Your task to perform on an android device: add a contact Image 0: 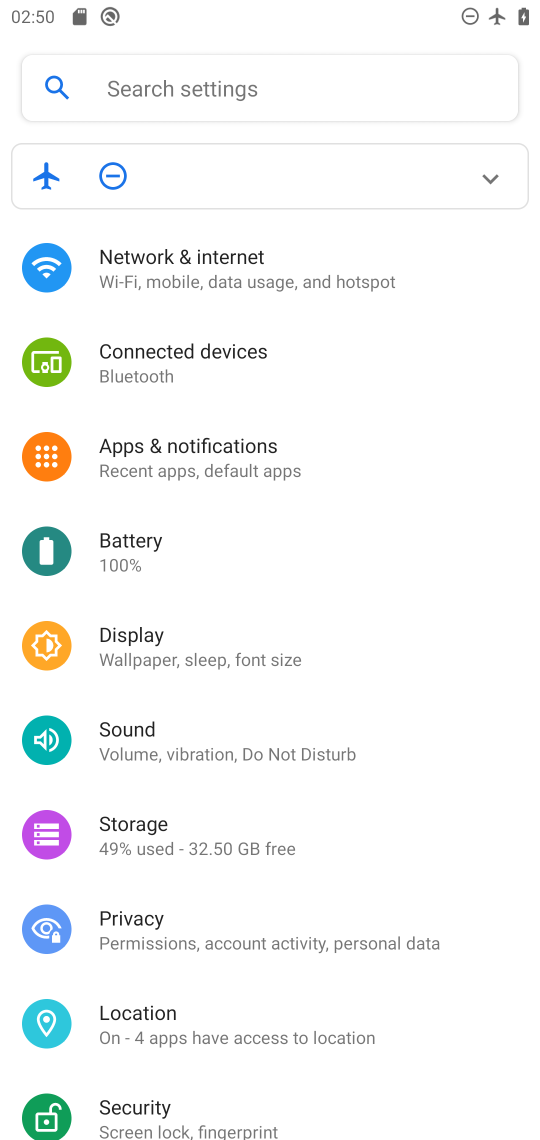
Step 0: press back button
Your task to perform on an android device: add a contact Image 1: 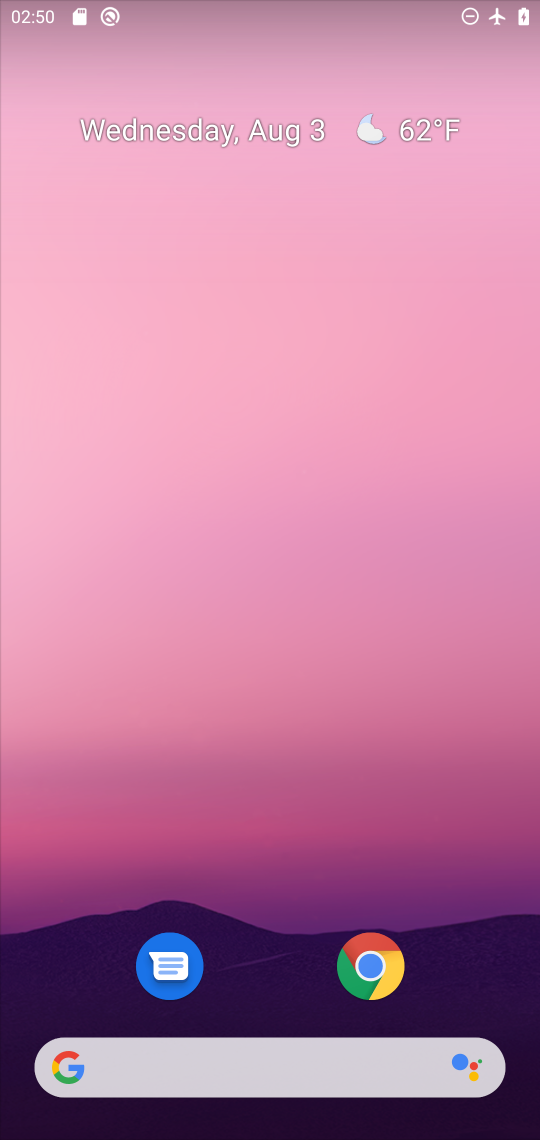
Step 1: press back button
Your task to perform on an android device: add a contact Image 2: 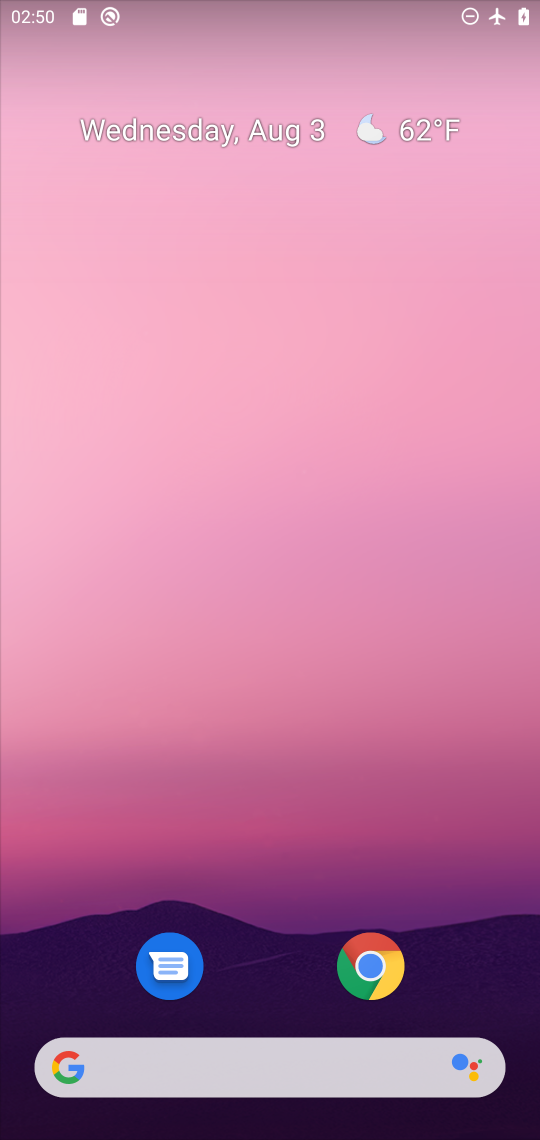
Step 2: drag from (278, 933) to (283, 306)
Your task to perform on an android device: add a contact Image 3: 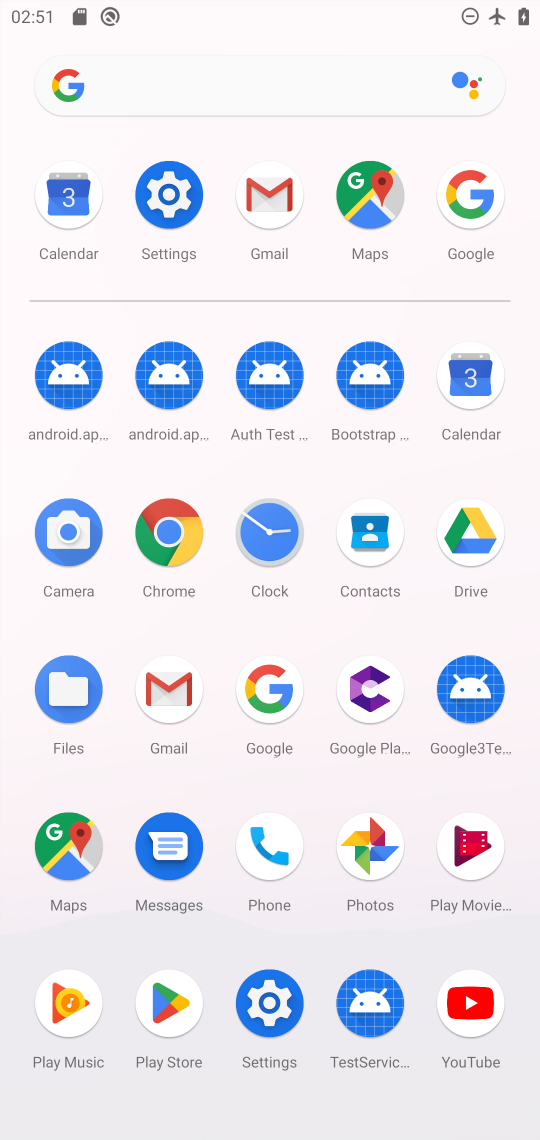
Step 3: click (366, 567)
Your task to perform on an android device: add a contact Image 4: 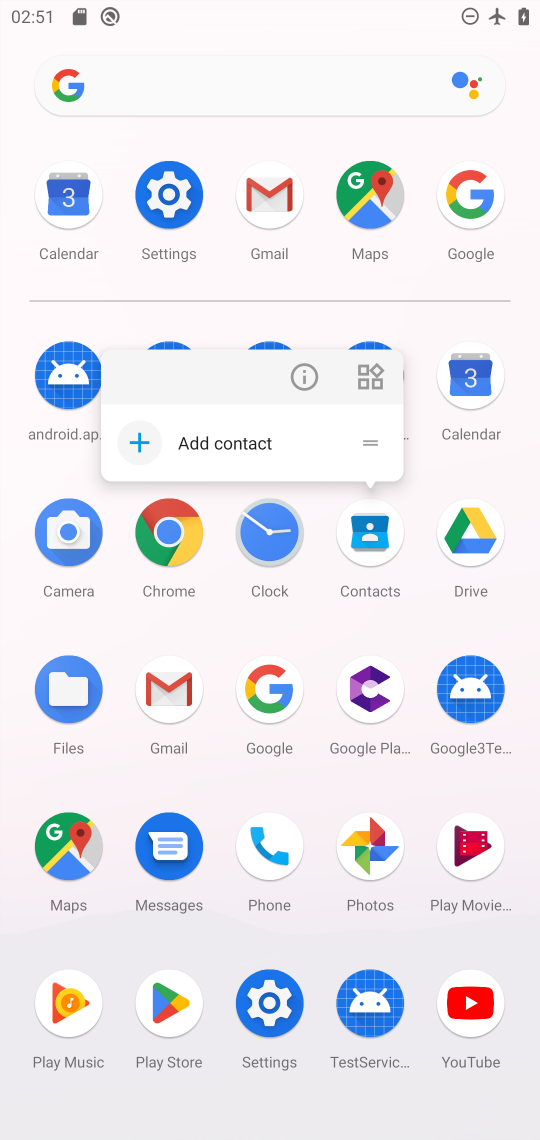
Step 4: click (366, 567)
Your task to perform on an android device: add a contact Image 5: 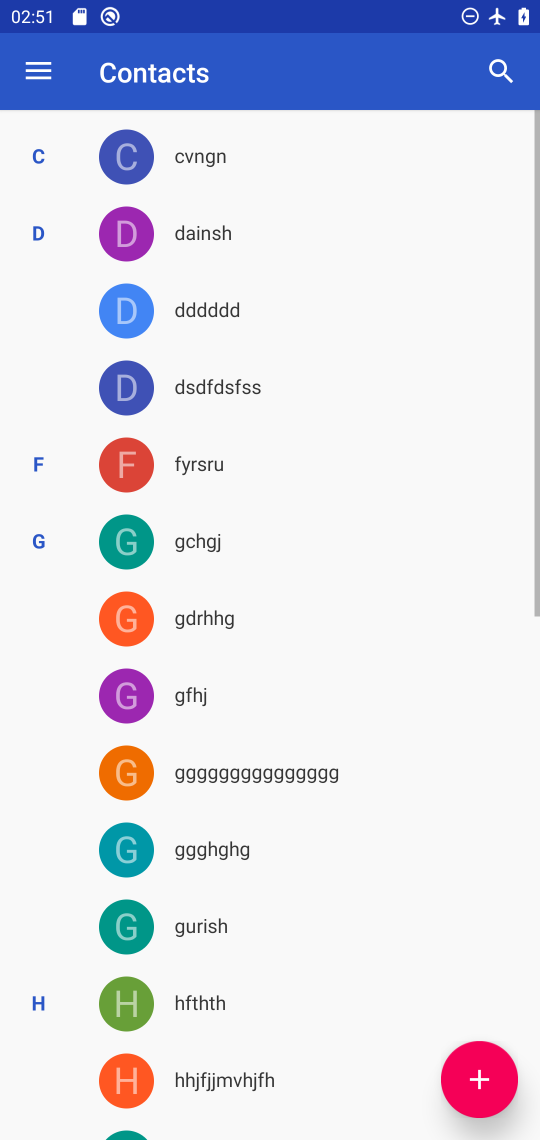
Step 5: click (470, 1074)
Your task to perform on an android device: add a contact Image 6: 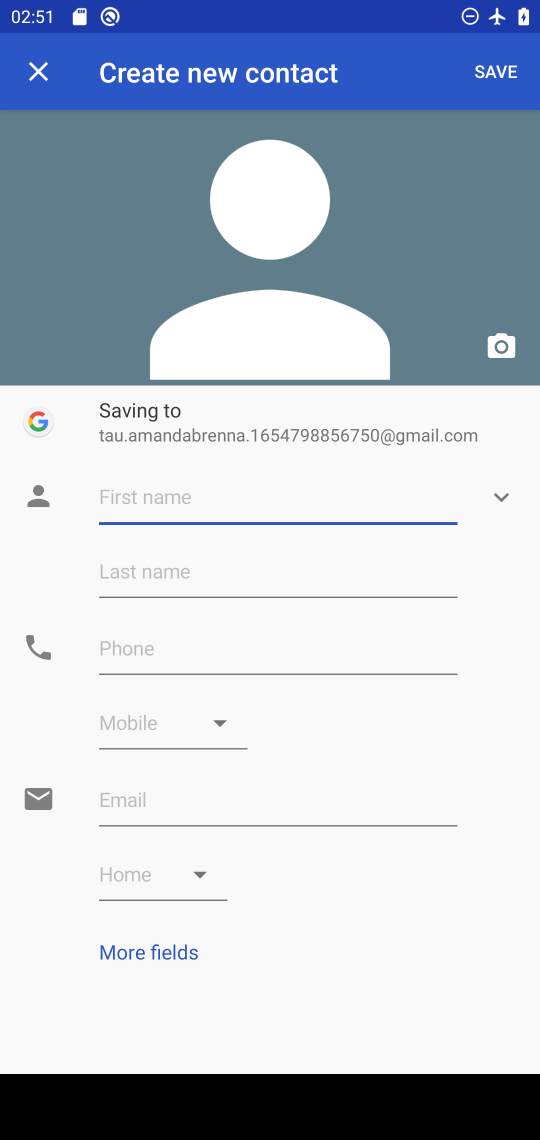
Step 6: type "fdsgdfg"
Your task to perform on an android device: add a contact Image 7: 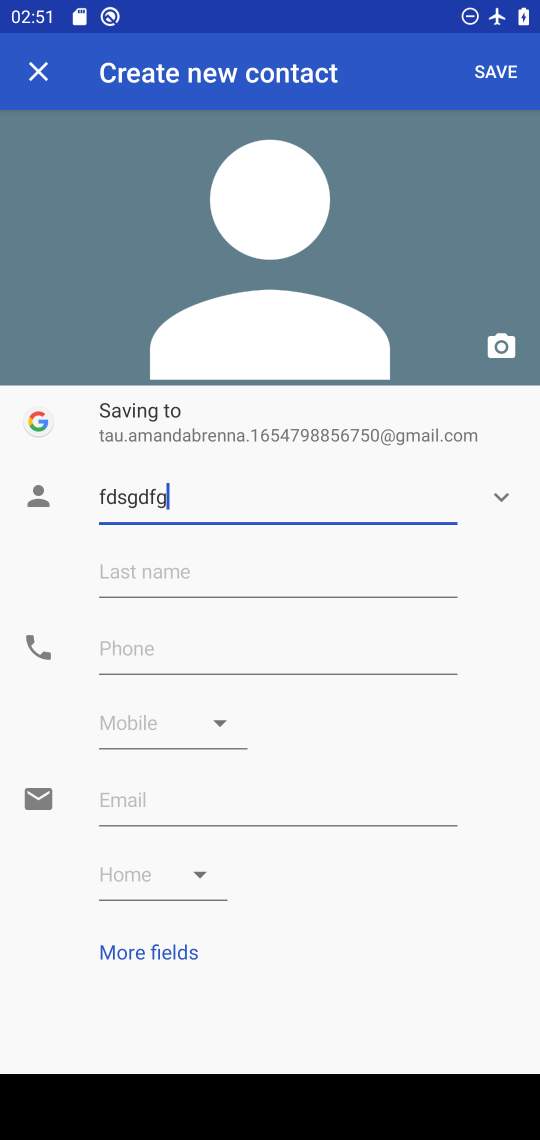
Step 7: type ""
Your task to perform on an android device: add a contact Image 8: 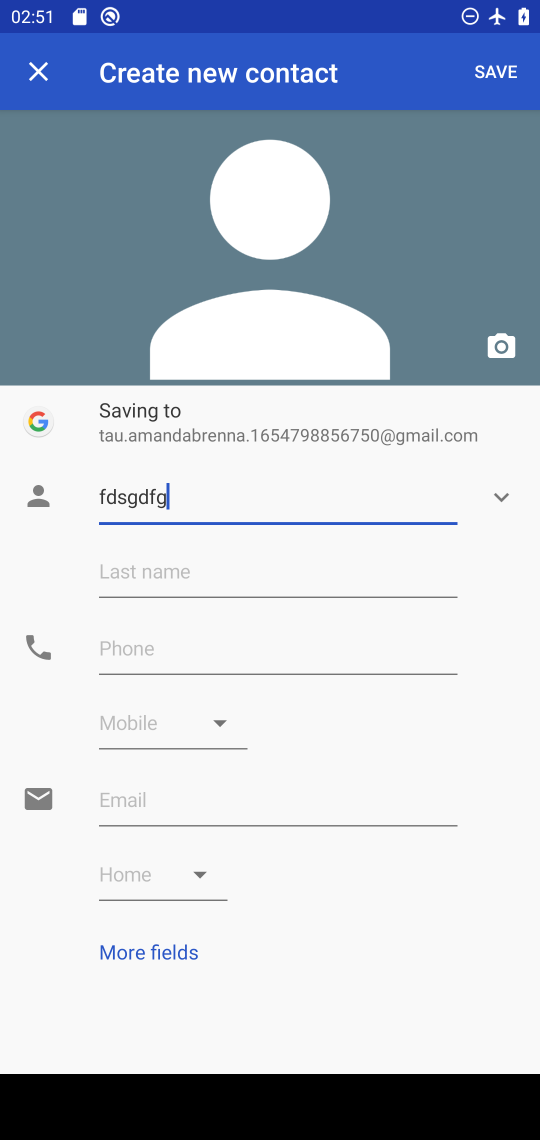
Step 8: click (216, 654)
Your task to perform on an android device: add a contact Image 9: 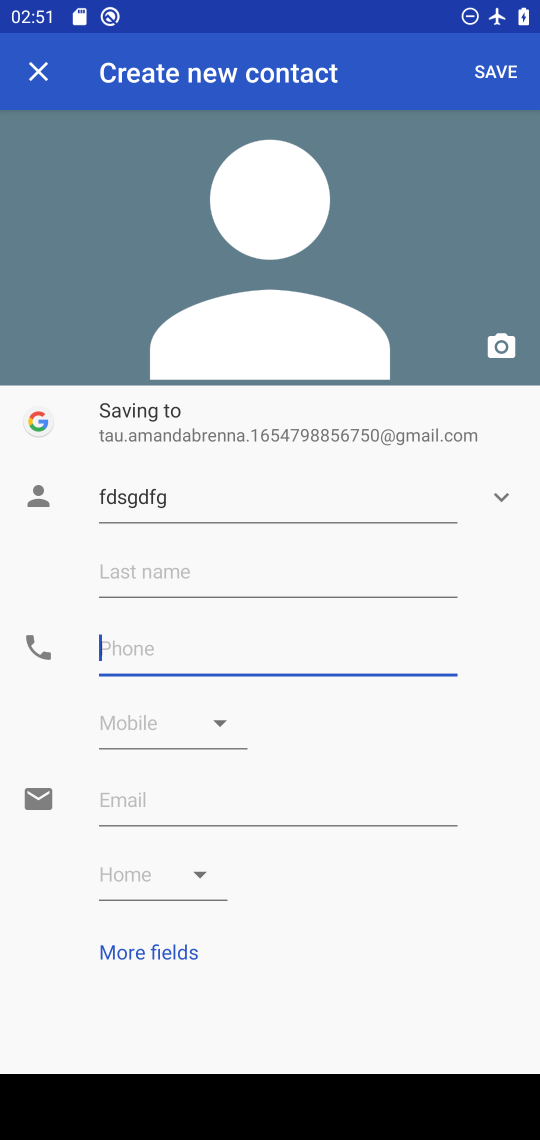
Step 9: type "8686575655"
Your task to perform on an android device: add a contact Image 10: 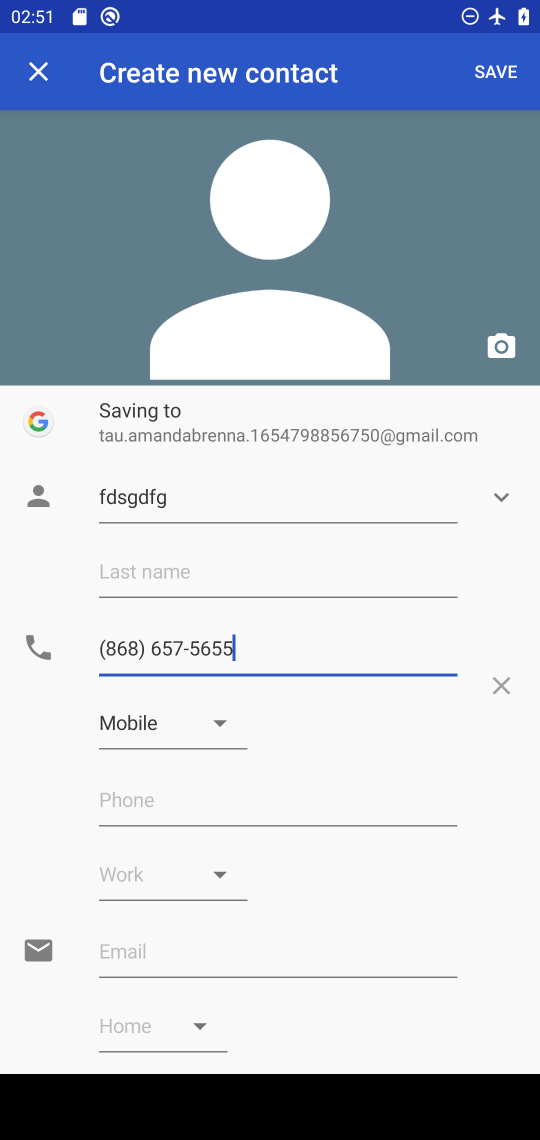
Step 10: type ""
Your task to perform on an android device: add a contact Image 11: 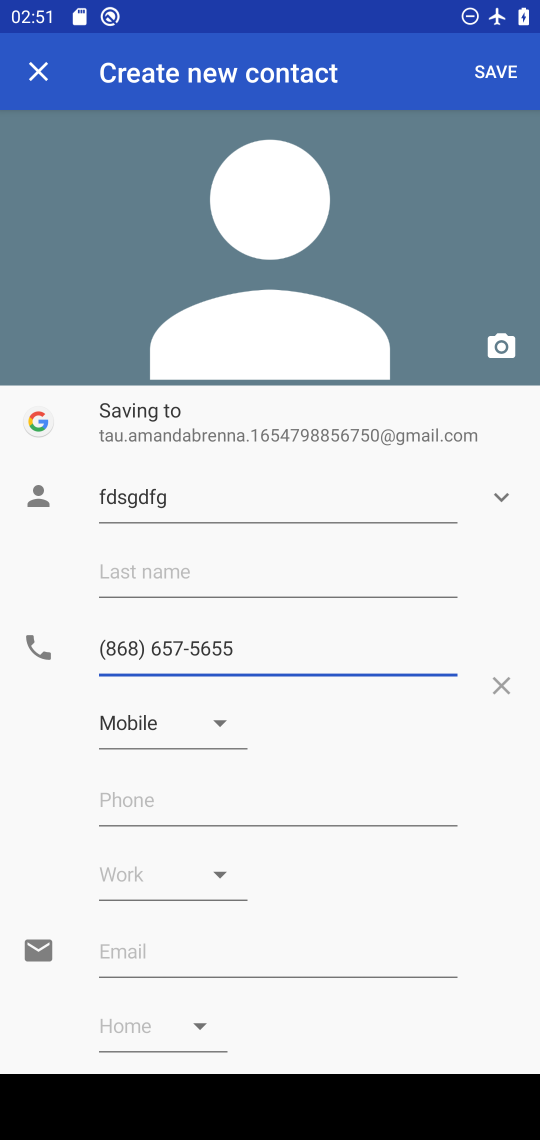
Step 11: click (508, 67)
Your task to perform on an android device: add a contact Image 12: 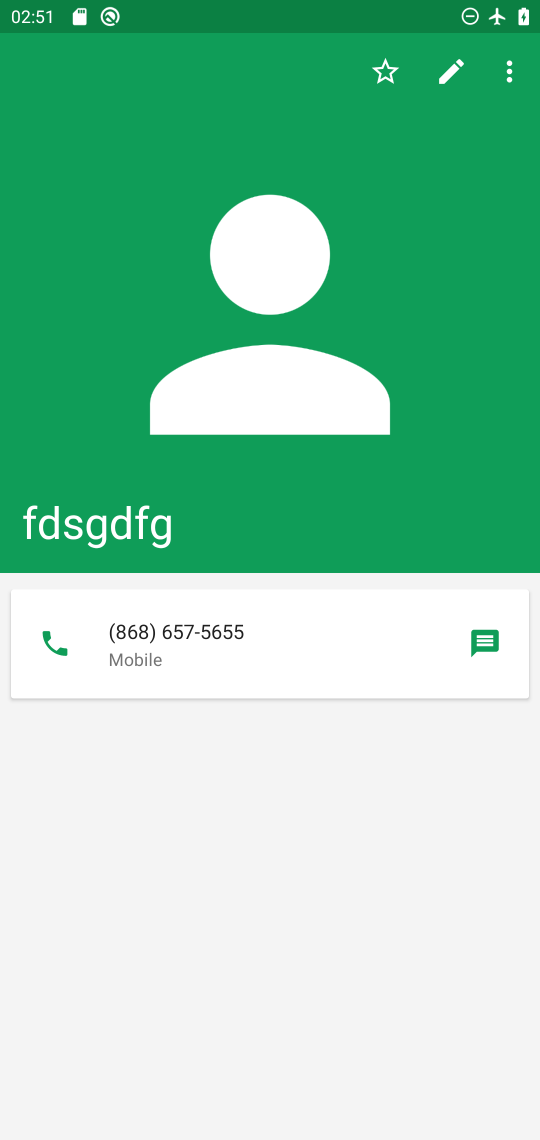
Step 12: task complete